Your task to perform on an android device: turn pop-ups off in chrome Image 0: 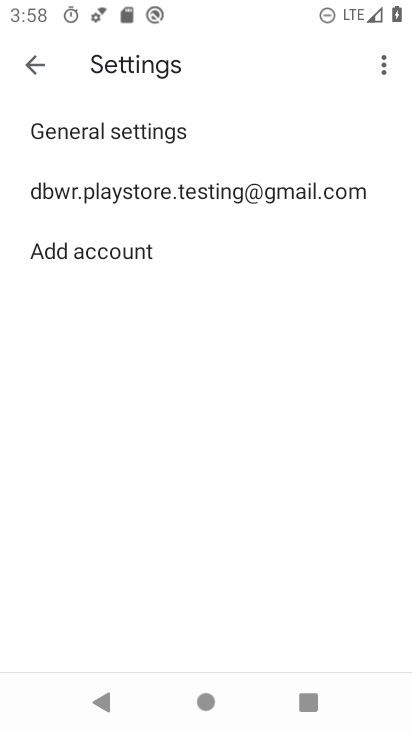
Step 0: press home button
Your task to perform on an android device: turn pop-ups off in chrome Image 1: 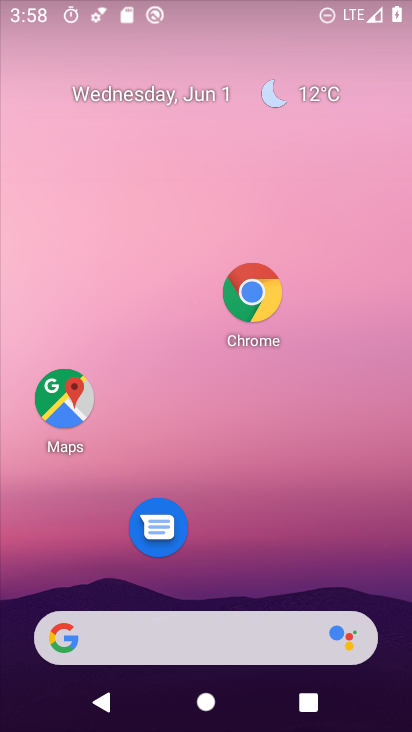
Step 1: drag from (218, 632) to (233, 130)
Your task to perform on an android device: turn pop-ups off in chrome Image 2: 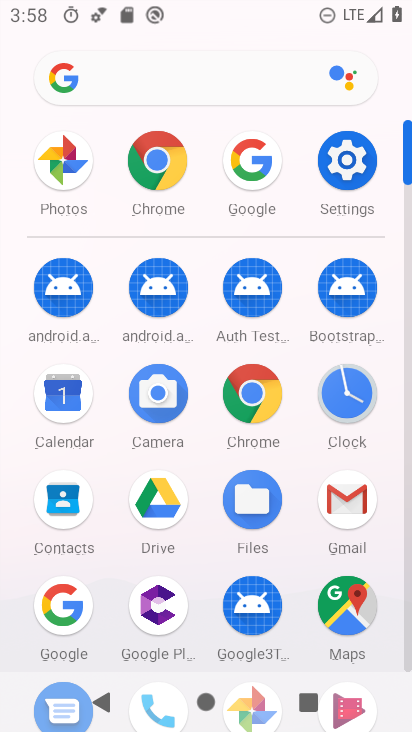
Step 2: click (180, 178)
Your task to perform on an android device: turn pop-ups off in chrome Image 3: 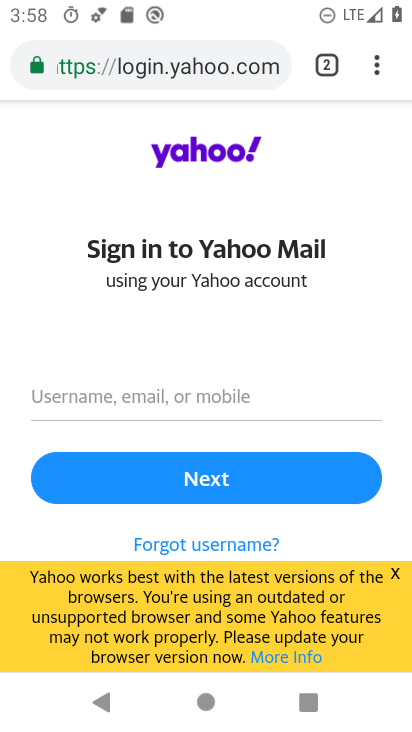
Step 3: click (376, 60)
Your task to perform on an android device: turn pop-ups off in chrome Image 4: 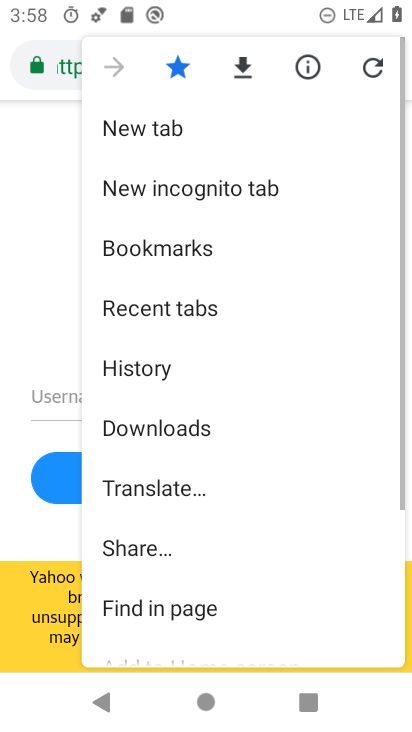
Step 4: drag from (162, 554) to (208, 42)
Your task to perform on an android device: turn pop-ups off in chrome Image 5: 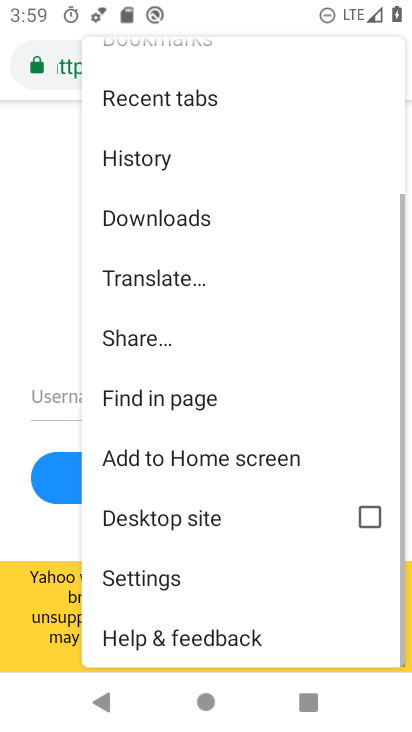
Step 5: click (182, 579)
Your task to perform on an android device: turn pop-ups off in chrome Image 6: 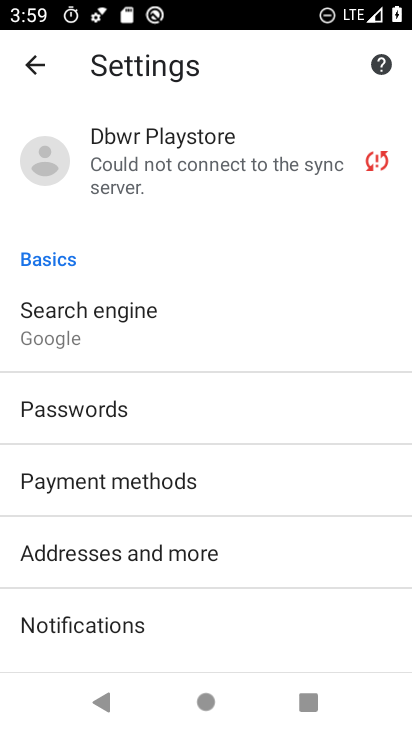
Step 6: drag from (187, 550) to (269, 4)
Your task to perform on an android device: turn pop-ups off in chrome Image 7: 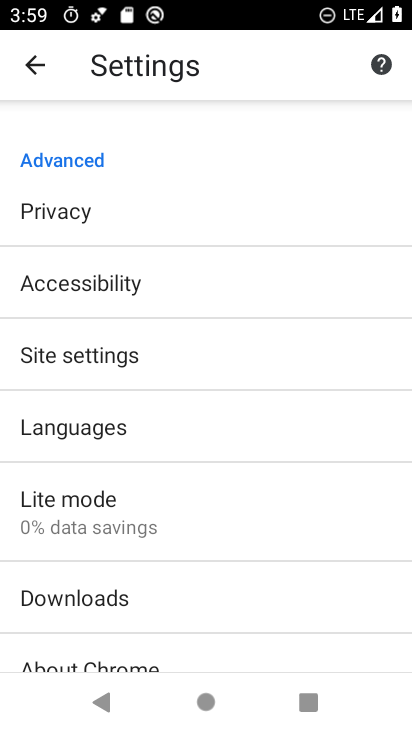
Step 7: click (100, 359)
Your task to perform on an android device: turn pop-ups off in chrome Image 8: 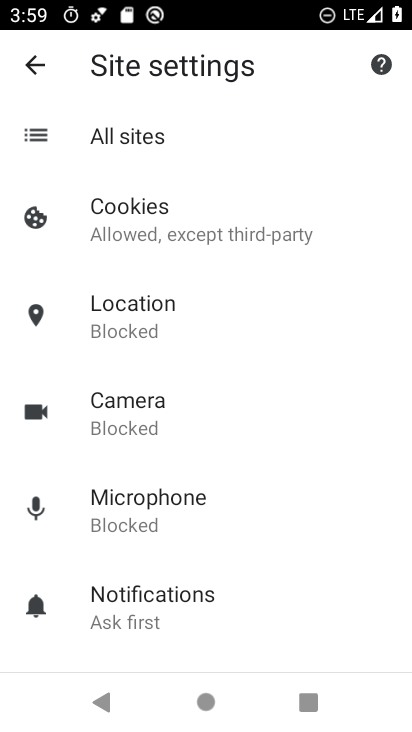
Step 8: drag from (146, 514) to (169, 279)
Your task to perform on an android device: turn pop-ups off in chrome Image 9: 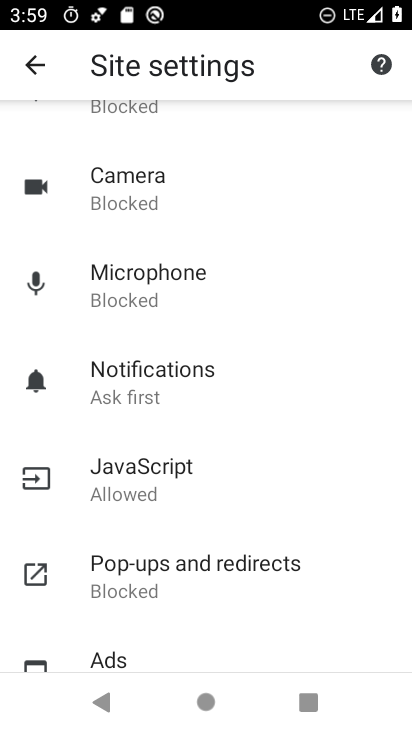
Step 9: click (221, 583)
Your task to perform on an android device: turn pop-ups off in chrome Image 10: 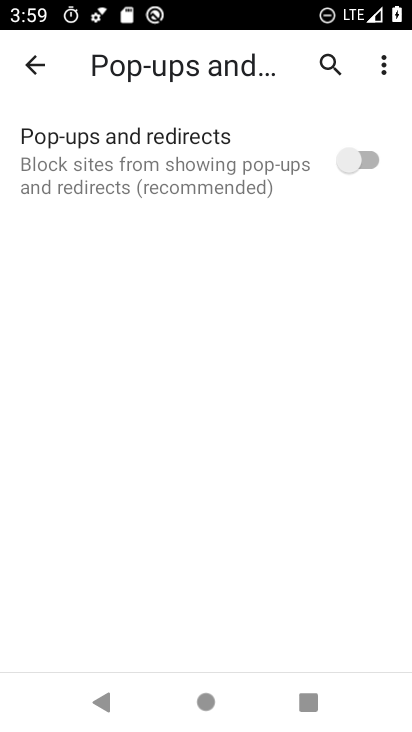
Step 10: task complete